Your task to perform on an android device: What's the weather going to be tomorrow? Image 0: 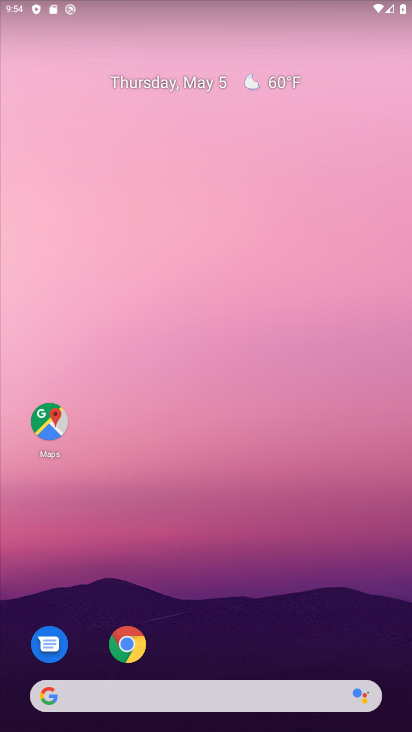
Step 0: drag from (376, 631) to (366, 73)
Your task to perform on an android device: What's the weather going to be tomorrow? Image 1: 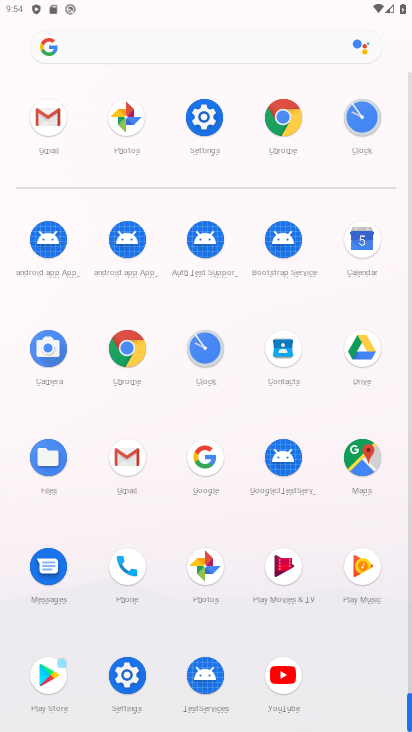
Step 1: click (120, 358)
Your task to perform on an android device: What's the weather going to be tomorrow? Image 2: 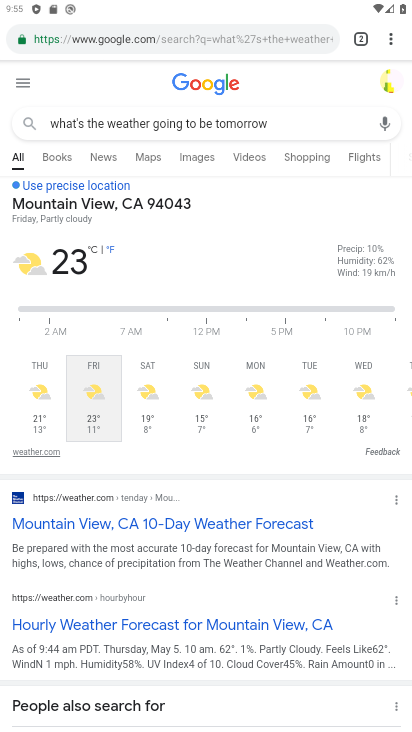
Step 2: click (214, 35)
Your task to perform on an android device: What's the weather going to be tomorrow? Image 3: 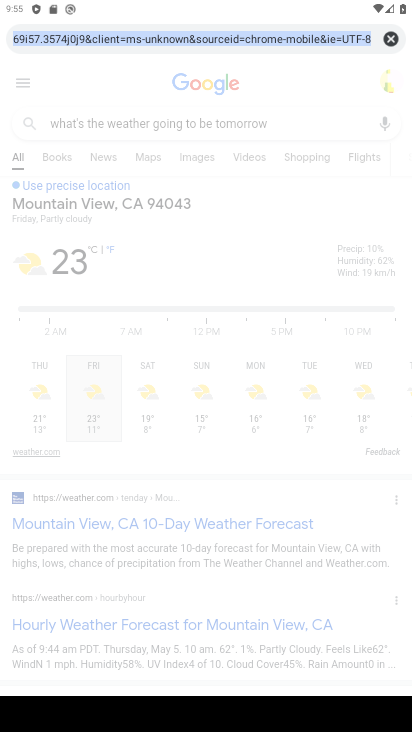
Step 3: click (391, 41)
Your task to perform on an android device: What's the weather going to be tomorrow? Image 4: 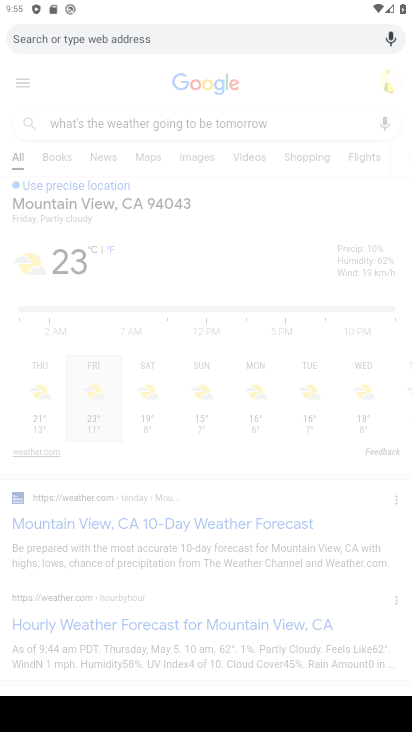
Step 4: type "what's the weather going to be tomorrow"
Your task to perform on an android device: What's the weather going to be tomorrow? Image 5: 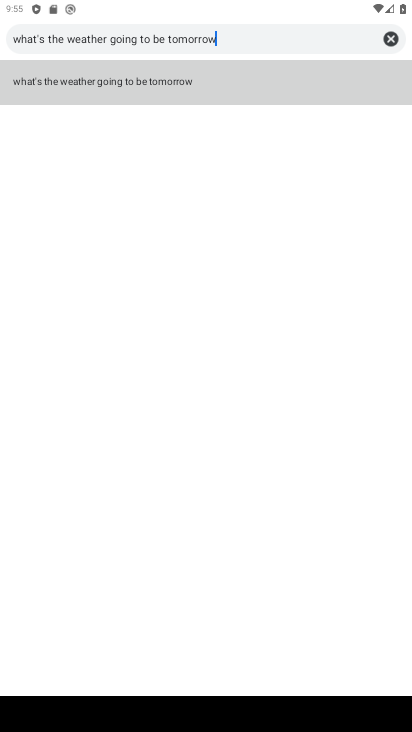
Step 5: click (134, 76)
Your task to perform on an android device: What's the weather going to be tomorrow? Image 6: 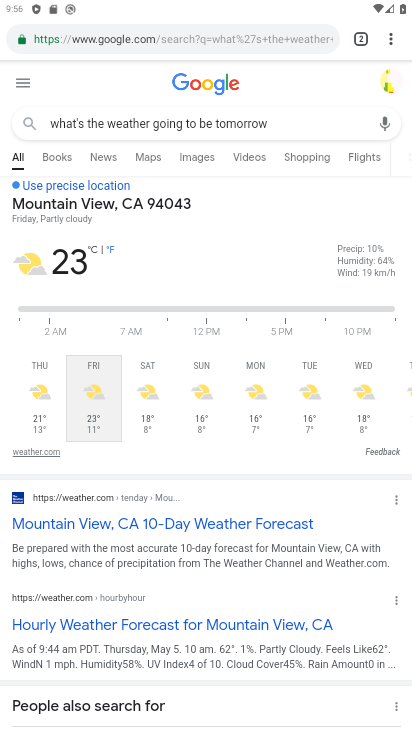
Step 6: task complete